Your task to perform on an android device: Do I have any events this weekend? Image 0: 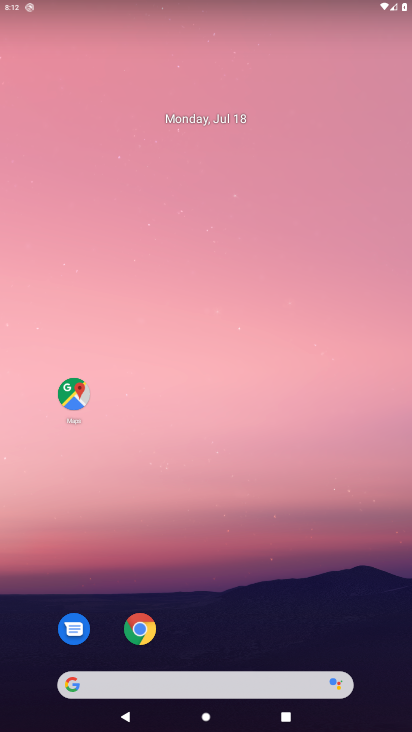
Step 0: drag from (13, 478) to (223, 81)
Your task to perform on an android device: Do I have any events this weekend? Image 1: 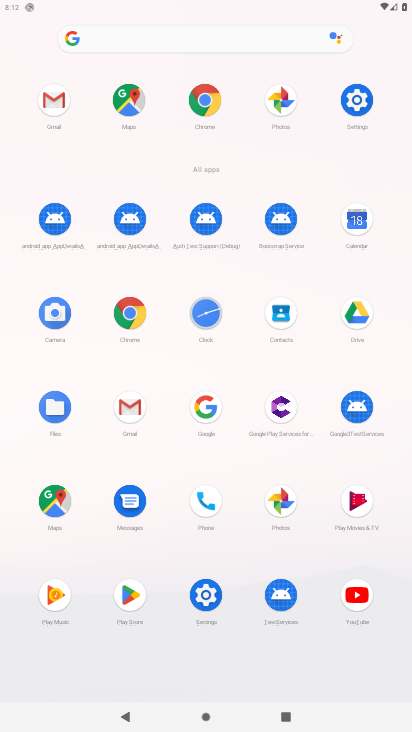
Step 1: click (361, 225)
Your task to perform on an android device: Do I have any events this weekend? Image 2: 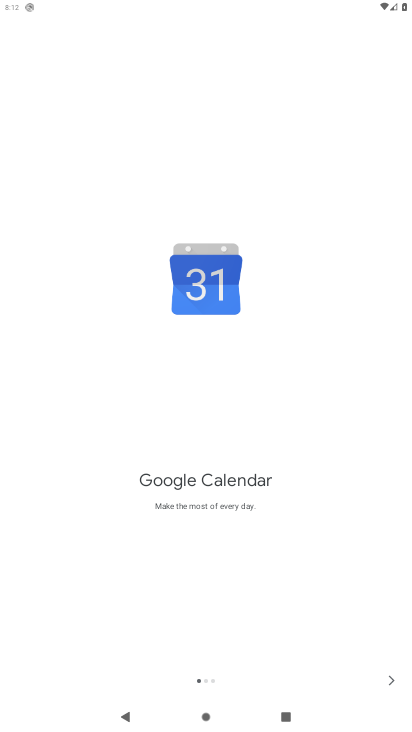
Step 2: click (391, 681)
Your task to perform on an android device: Do I have any events this weekend? Image 3: 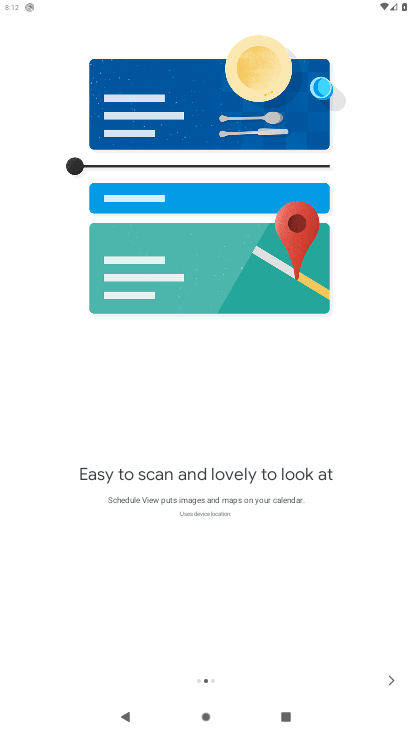
Step 3: click (391, 682)
Your task to perform on an android device: Do I have any events this weekend? Image 4: 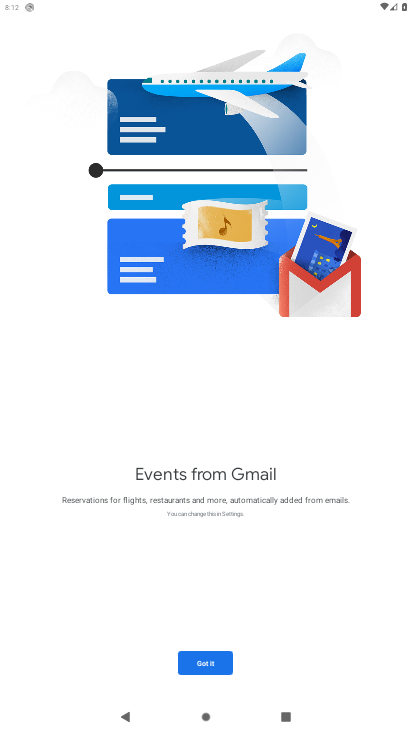
Step 4: click (191, 662)
Your task to perform on an android device: Do I have any events this weekend? Image 5: 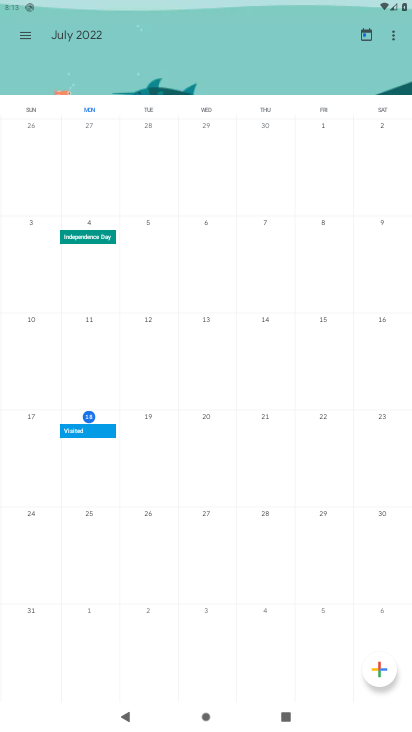
Step 5: task complete